Your task to perform on an android device: Open Google Image 0: 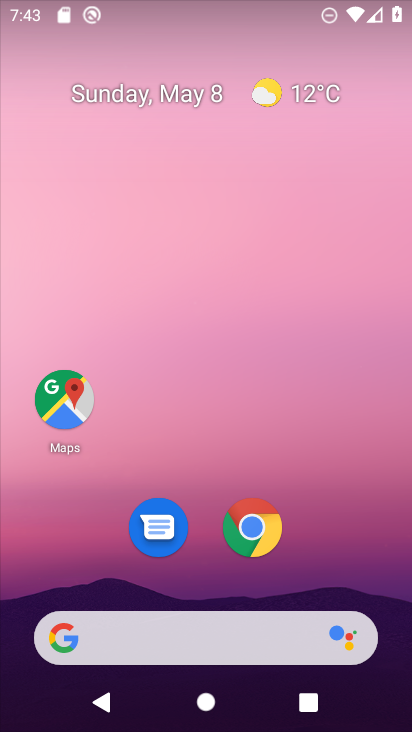
Step 0: drag from (305, 544) to (350, 75)
Your task to perform on an android device: Open Google Image 1: 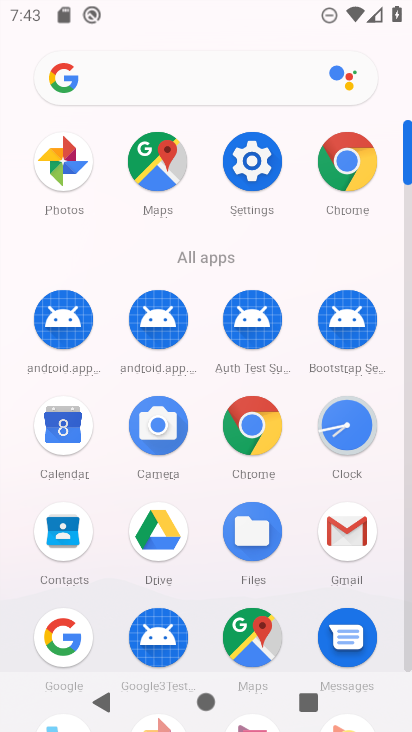
Step 1: click (65, 622)
Your task to perform on an android device: Open Google Image 2: 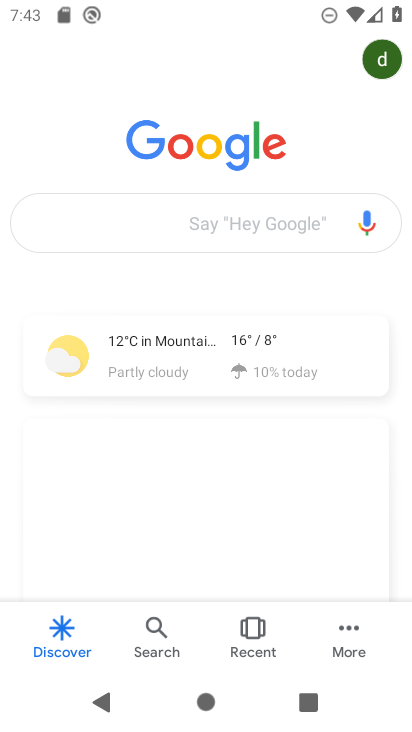
Step 2: task complete